Your task to perform on an android device: Do I have any events this weekend? Image 0: 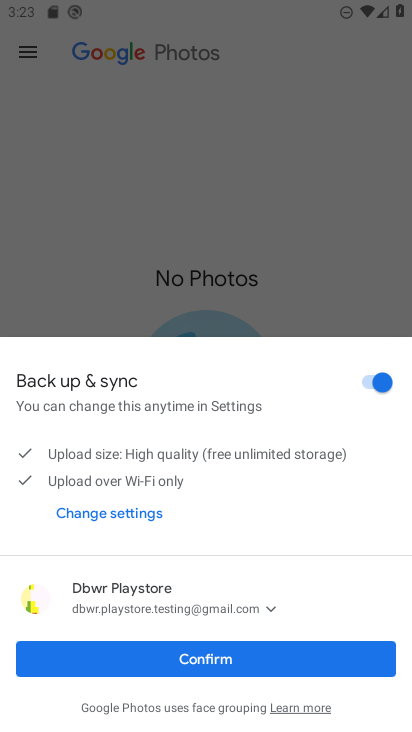
Step 0: press home button
Your task to perform on an android device: Do I have any events this weekend? Image 1: 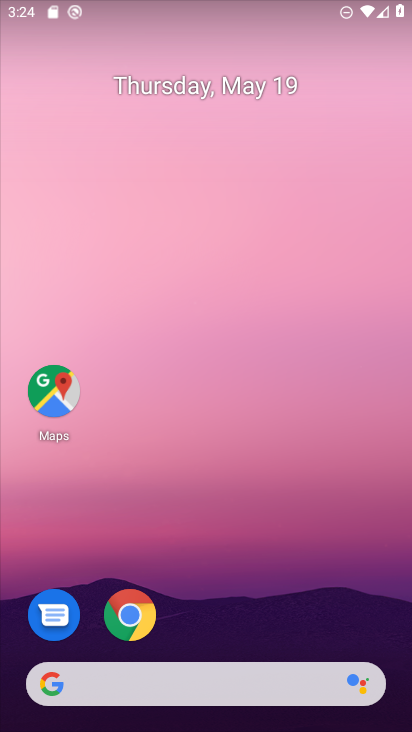
Step 1: drag from (261, 627) to (162, 65)
Your task to perform on an android device: Do I have any events this weekend? Image 2: 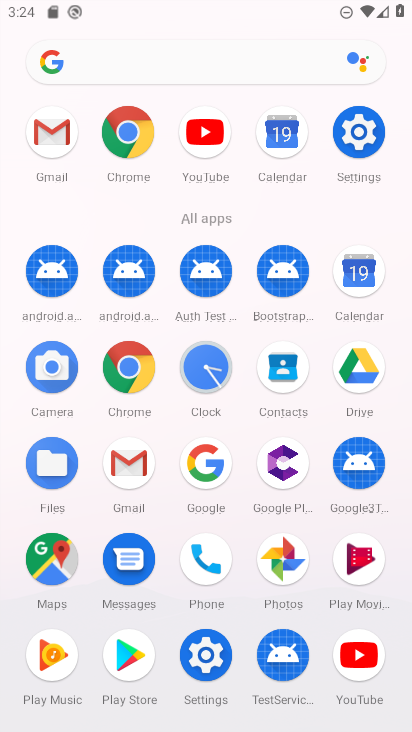
Step 2: click (281, 161)
Your task to perform on an android device: Do I have any events this weekend? Image 3: 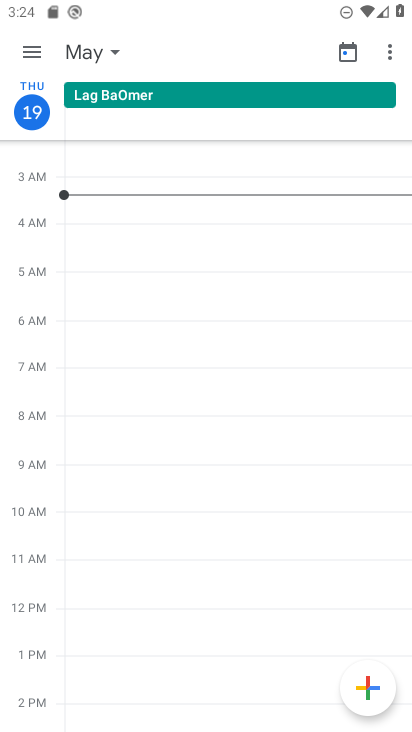
Step 3: click (36, 53)
Your task to perform on an android device: Do I have any events this weekend? Image 4: 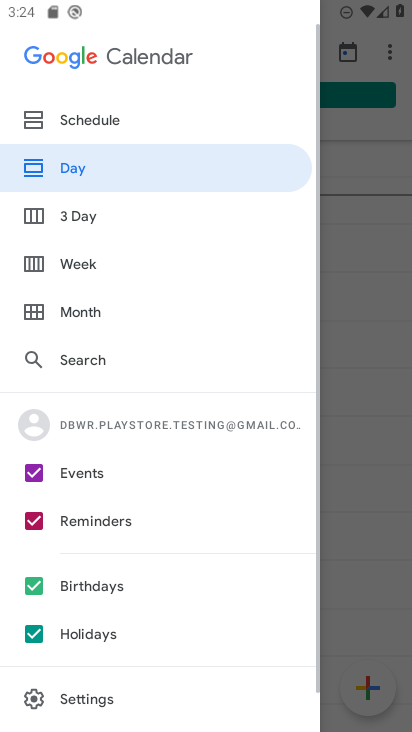
Step 4: click (81, 216)
Your task to perform on an android device: Do I have any events this weekend? Image 5: 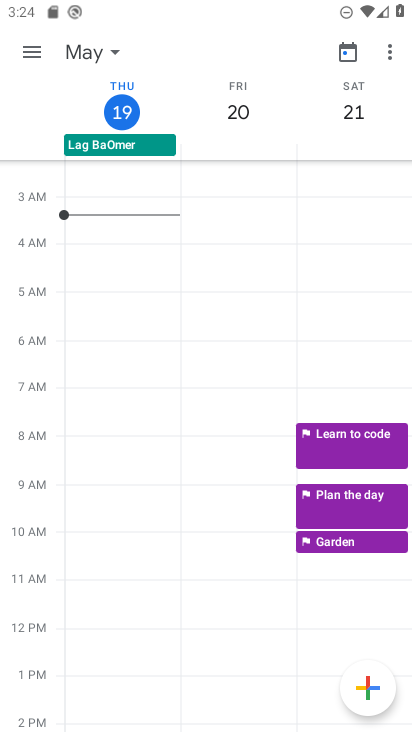
Step 5: click (39, 55)
Your task to perform on an android device: Do I have any events this weekend? Image 6: 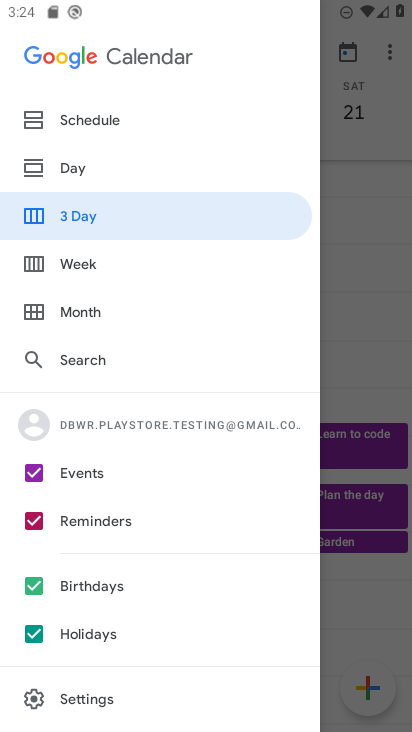
Step 6: click (35, 634)
Your task to perform on an android device: Do I have any events this weekend? Image 7: 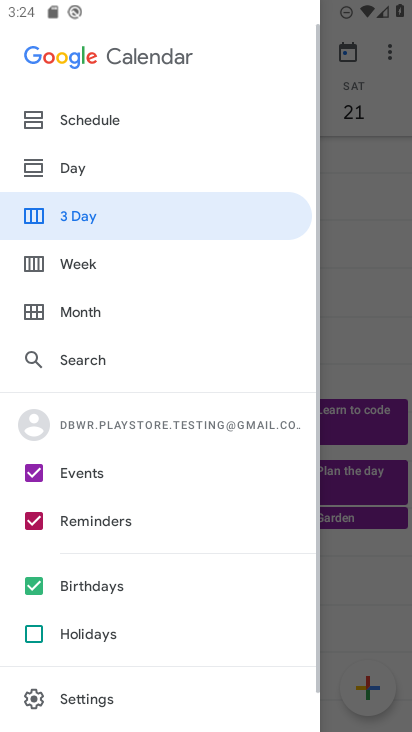
Step 7: click (30, 586)
Your task to perform on an android device: Do I have any events this weekend? Image 8: 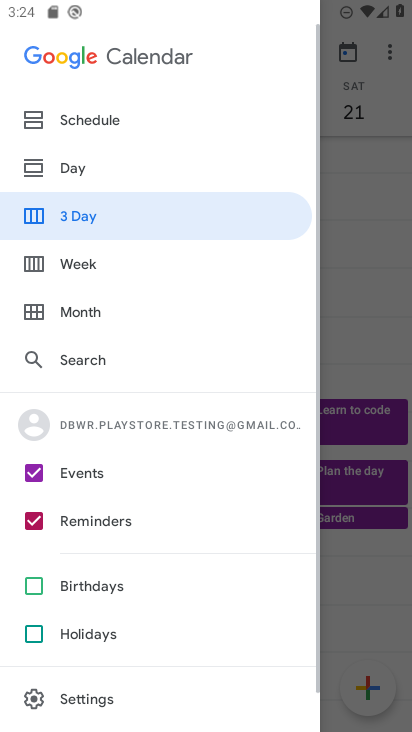
Step 8: click (33, 515)
Your task to perform on an android device: Do I have any events this weekend? Image 9: 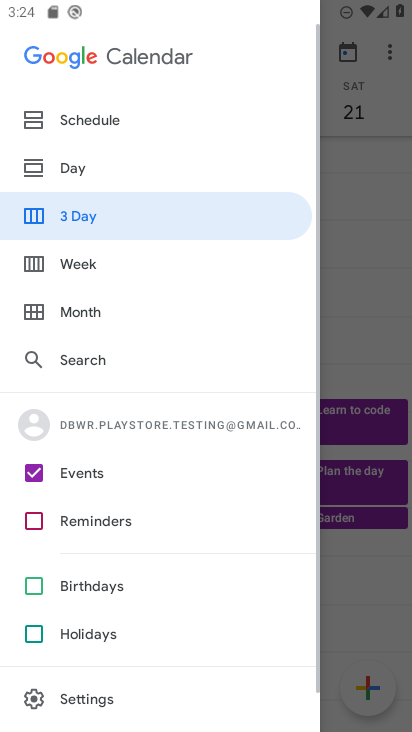
Step 9: click (93, 211)
Your task to perform on an android device: Do I have any events this weekend? Image 10: 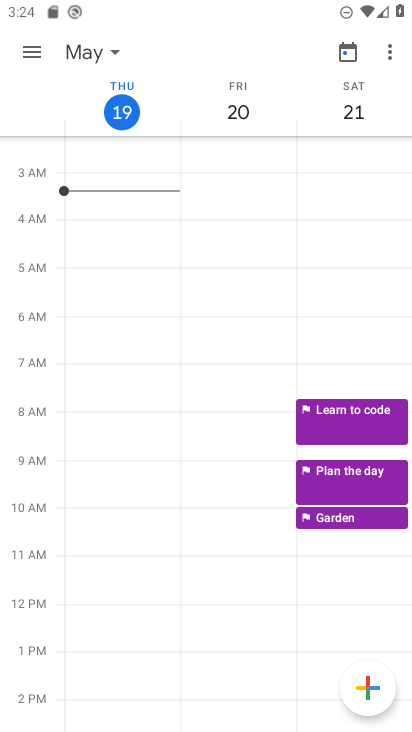
Step 10: task complete